Your task to perform on an android device: remove spam from my inbox in the gmail app Image 0: 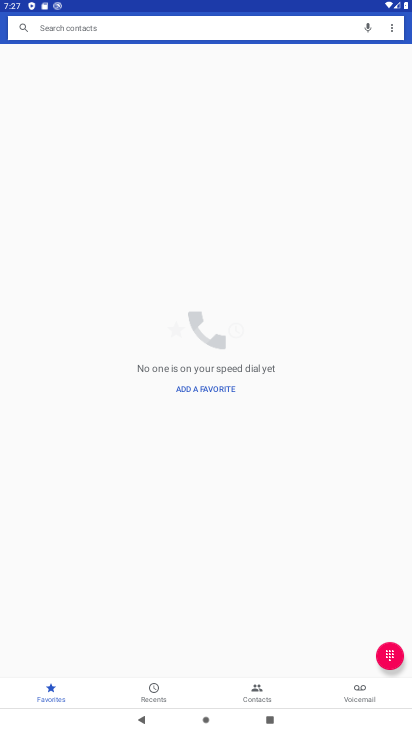
Step 0: press home button
Your task to perform on an android device: remove spam from my inbox in the gmail app Image 1: 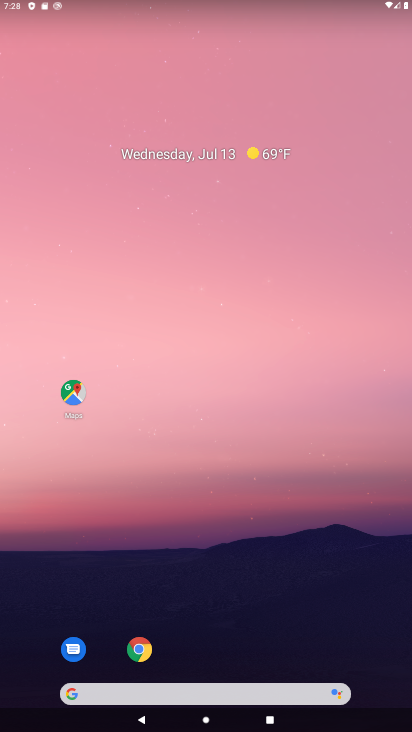
Step 1: drag from (172, 670) to (231, 207)
Your task to perform on an android device: remove spam from my inbox in the gmail app Image 2: 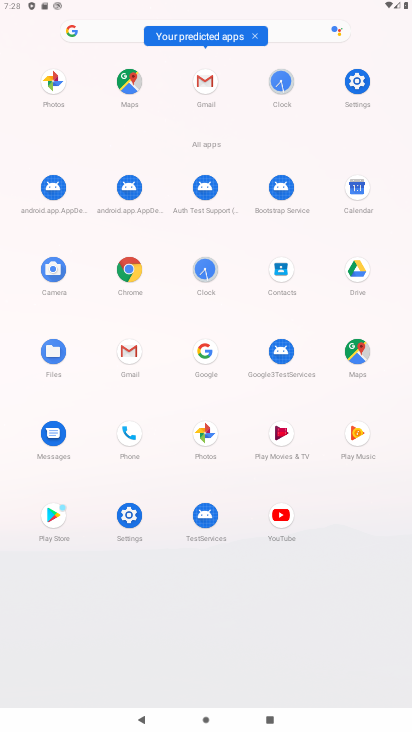
Step 2: click (127, 356)
Your task to perform on an android device: remove spam from my inbox in the gmail app Image 3: 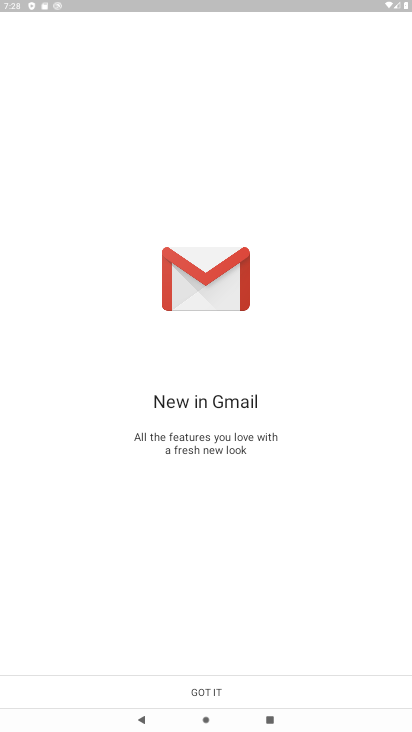
Step 3: click (205, 691)
Your task to perform on an android device: remove spam from my inbox in the gmail app Image 4: 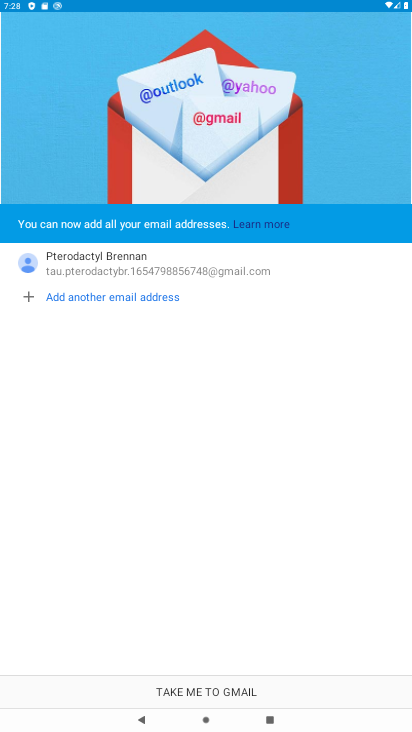
Step 4: click (205, 691)
Your task to perform on an android device: remove spam from my inbox in the gmail app Image 5: 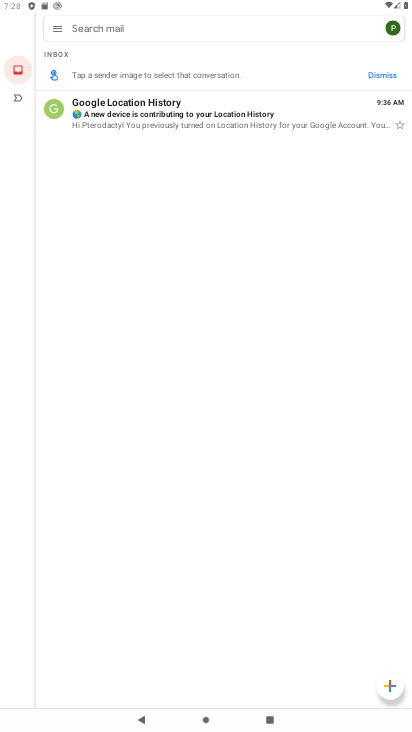
Step 5: click (62, 29)
Your task to perform on an android device: remove spam from my inbox in the gmail app Image 6: 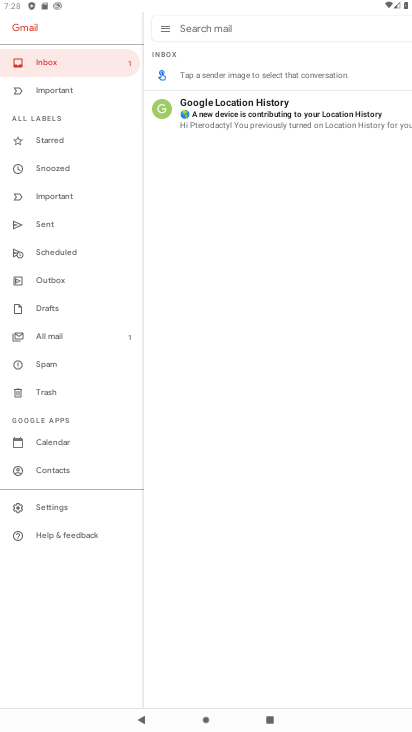
Step 6: click (47, 362)
Your task to perform on an android device: remove spam from my inbox in the gmail app Image 7: 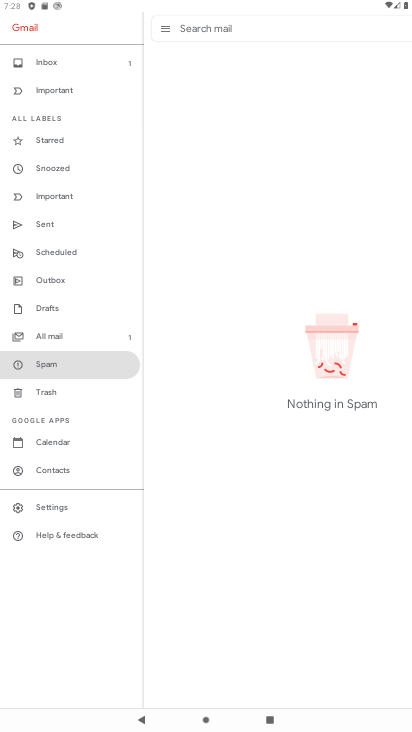
Step 7: task complete